Your task to perform on an android device: check the backup settings in the google photos Image 0: 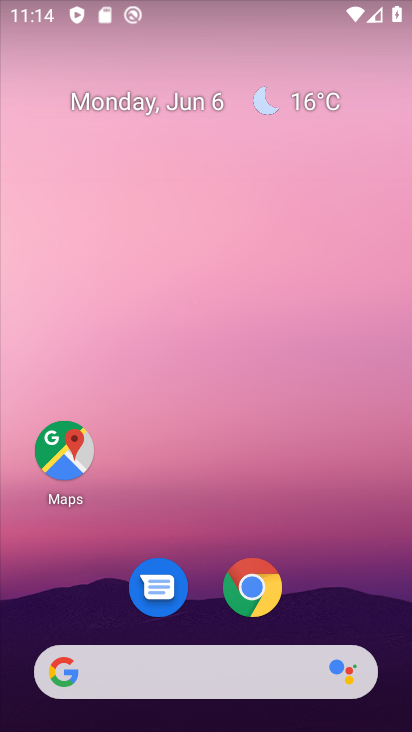
Step 0: drag from (318, 557) to (236, 20)
Your task to perform on an android device: check the backup settings in the google photos Image 1: 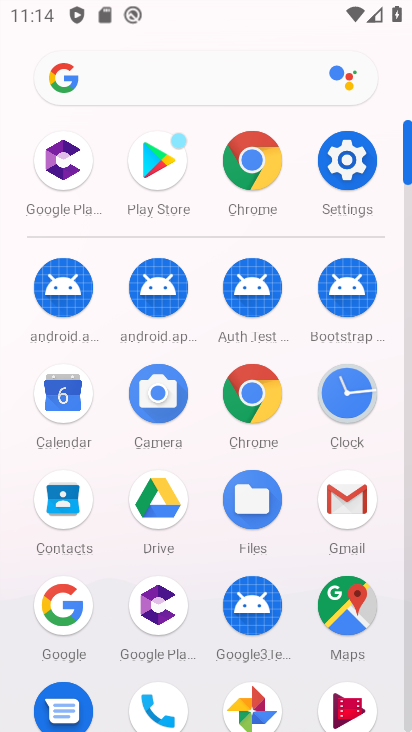
Step 1: click (248, 705)
Your task to perform on an android device: check the backup settings in the google photos Image 2: 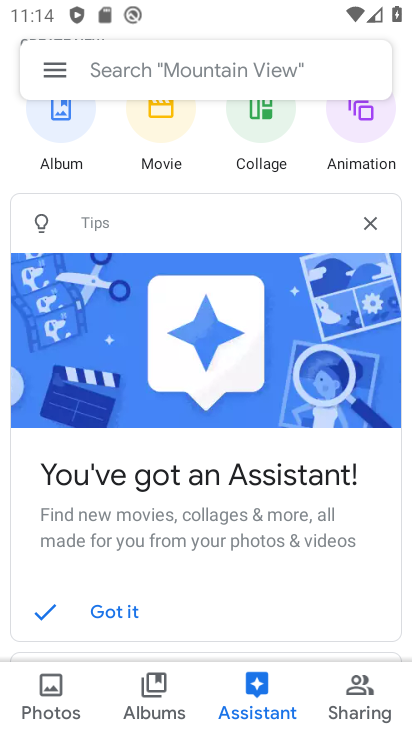
Step 2: click (65, 69)
Your task to perform on an android device: check the backup settings in the google photos Image 3: 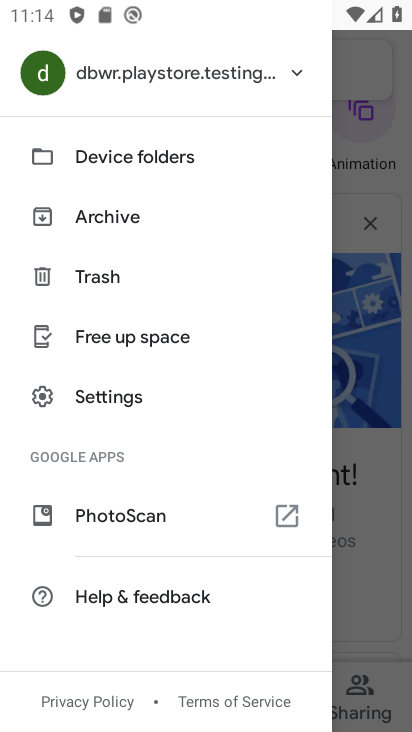
Step 3: click (135, 398)
Your task to perform on an android device: check the backup settings in the google photos Image 4: 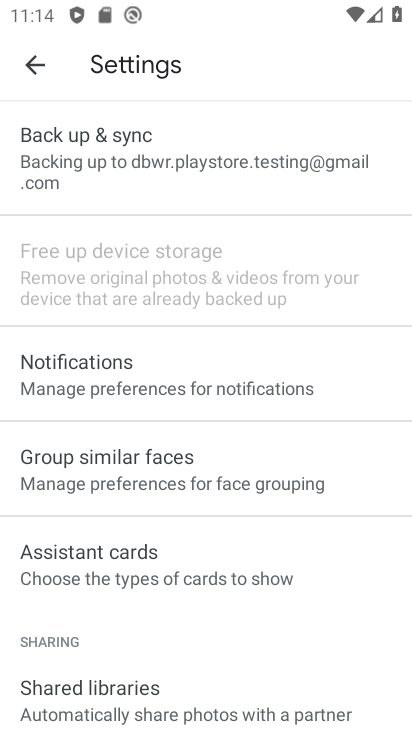
Step 4: click (138, 159)
Your task to perform on an android device: check the backup settings in the google photos Image 5: 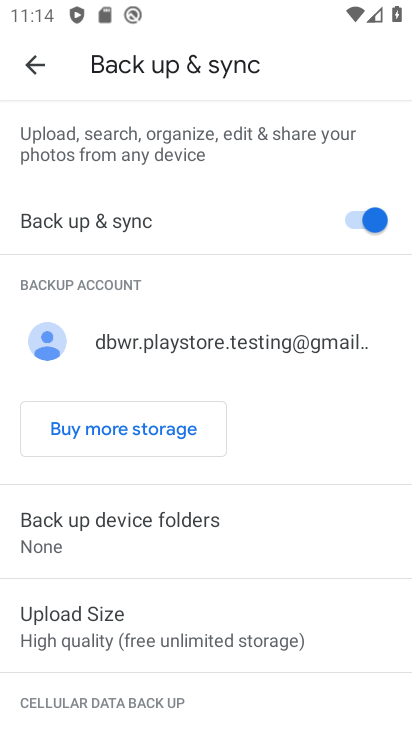
Step 5: click (213, 628)
Your task to perform on an android device: check the backup settings in the google photos Image 6: 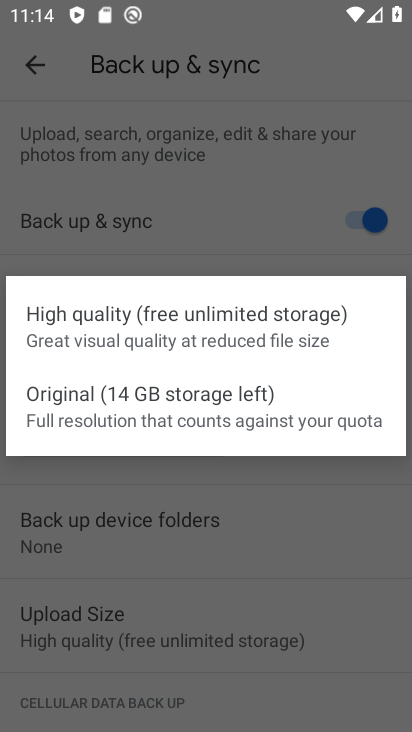
Step 6: click (175, 382)
Your task to perform on an android device: check the backup settings in the google photos Image 7: 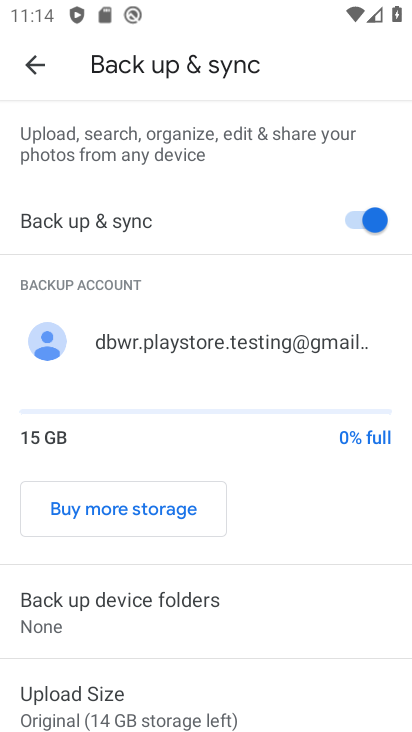
Step 7: task complete